Your task to perform on an android device: turn on showing notifications on the lock screen Image 0: 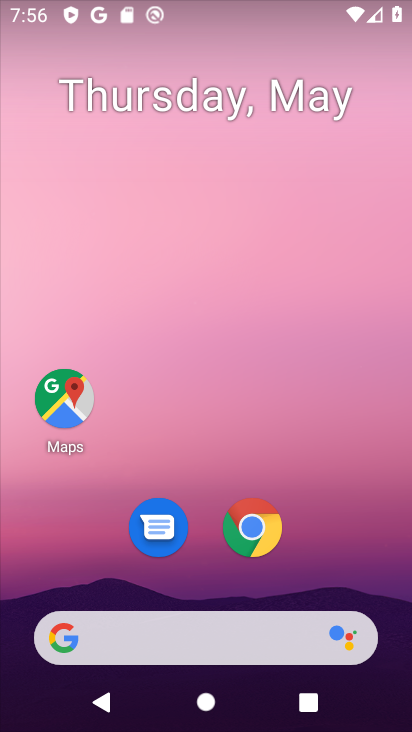
Step 0: drag from (34, 575) to (236, 117)
Your task to perform on an android device: turn on showing notifications on the lock screen Image 1: 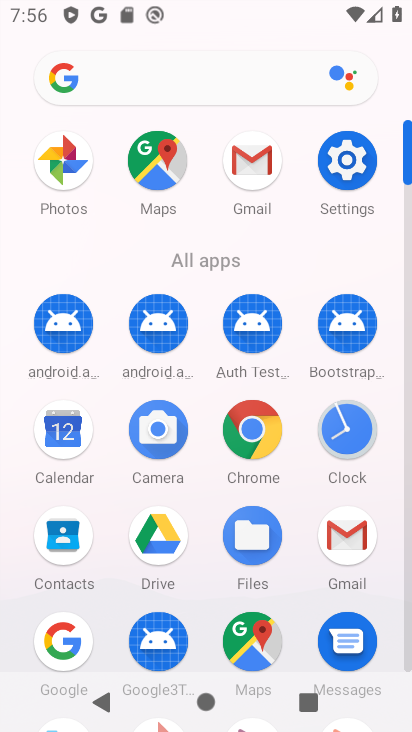
Step 1: click (324, 171)
Your task to perform on an android device: turn on showing notifications on the lock screen Image 2: 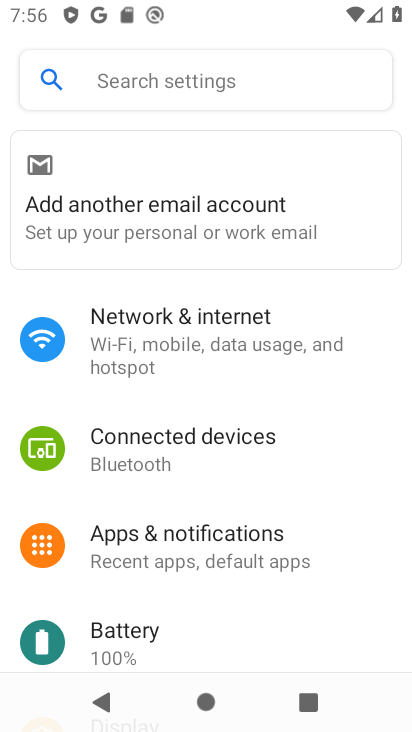
Step 2: click (172, 559)
Your task to perform on an android device: turn on showing notifications on the lock screen Image 3: 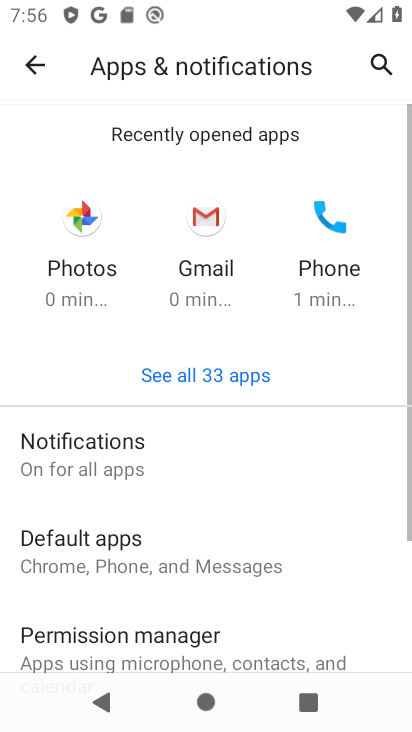
Step 3: click (250, 457)
Your task to perform on an android device: turn on showing notifications on the lock screen Image 4: 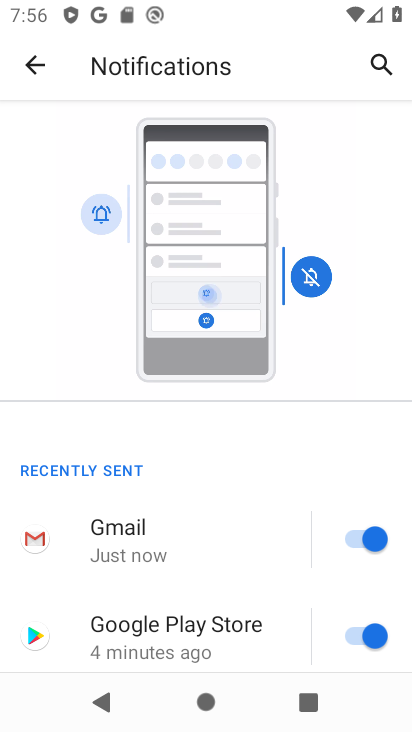
Step 4: drag from (19, 539) to (211, 163)
Your task to perform on an android device: turn on showing notifications on the lock screen Image 5: 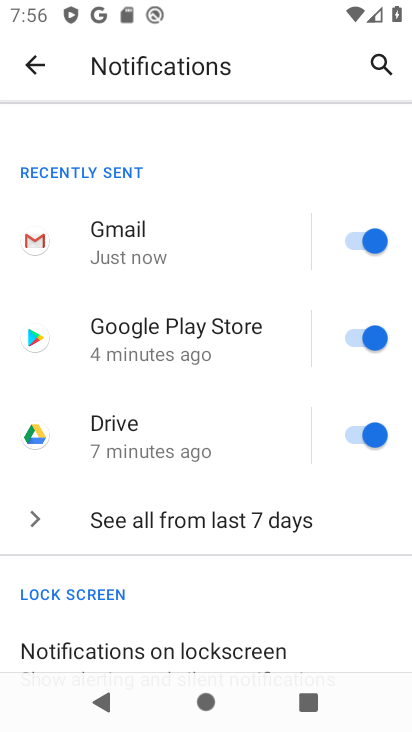
Step 5: drag from (34, 524) to (281, 197)
Your task to perform on an android device: turn on showing notifications on the lock screen Image 6: 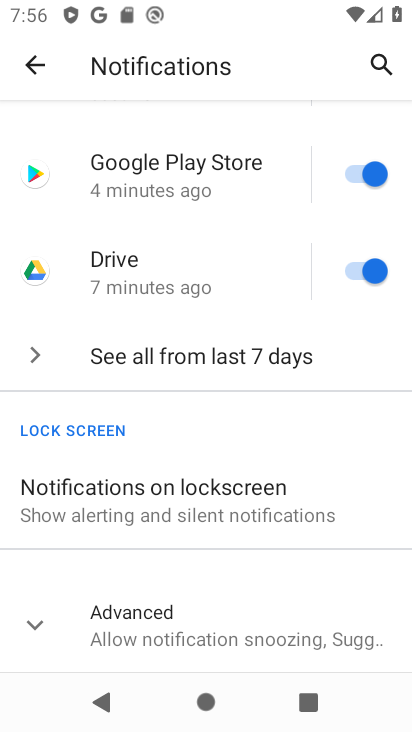
Step 6: click (147, 513)
Your task to perform on an android device: turn on showing notifications on the lock screen Image 7: 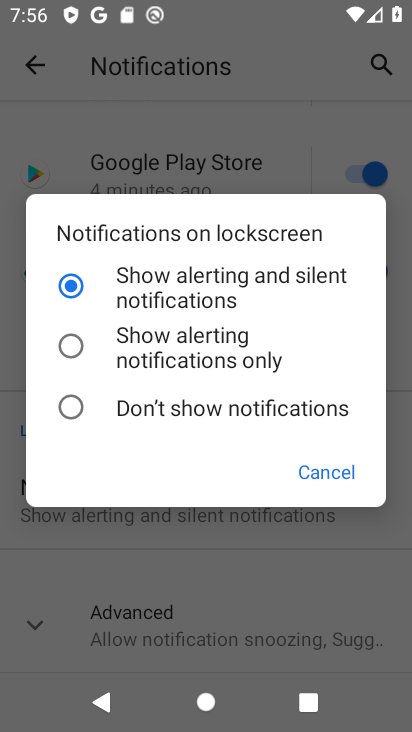
Step 7: task complete